Your task to perform on an android device: turn smart compose on in the gmail app Image 0: 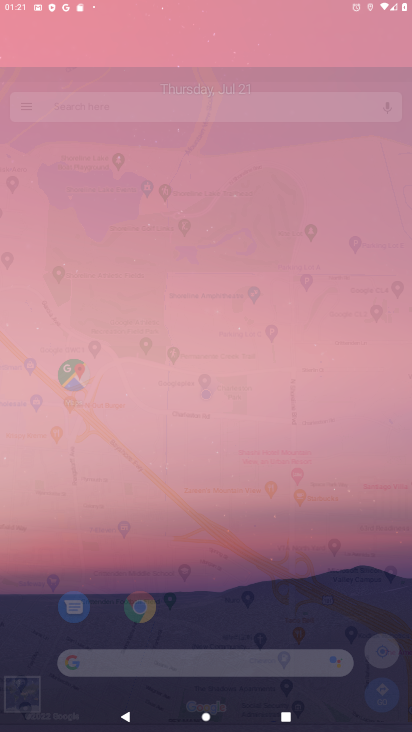
Step 0: click (223, 80)
Your task to perform on an android device: turn smart compose on in the gmail app Image 1: 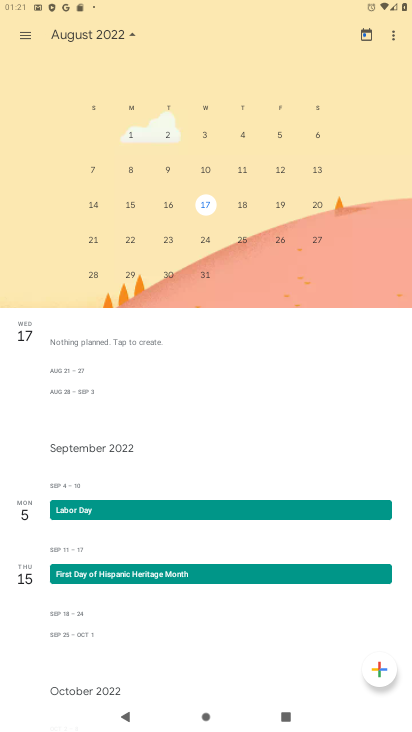
Step 1: press home button
Your task to perform on an android device: turn smart compose on in the gmail app Image 2: 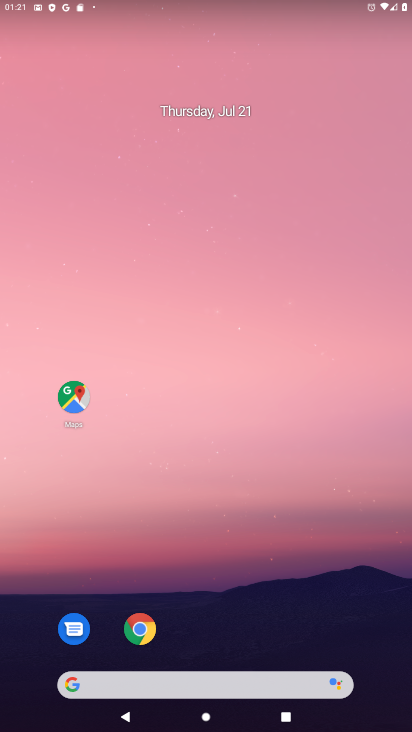
Step 2: drag from (208, 631) to (244, 54)
Your task to perform on an android device: turn smart compose on in the gmail app Image 3: 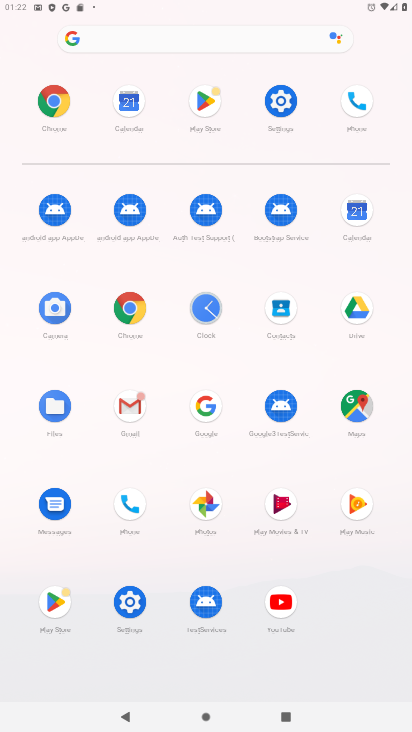
Step 3: click (128, 400)
Your task to perform on an android device: turn smart compose on in the gmail app Image 4: 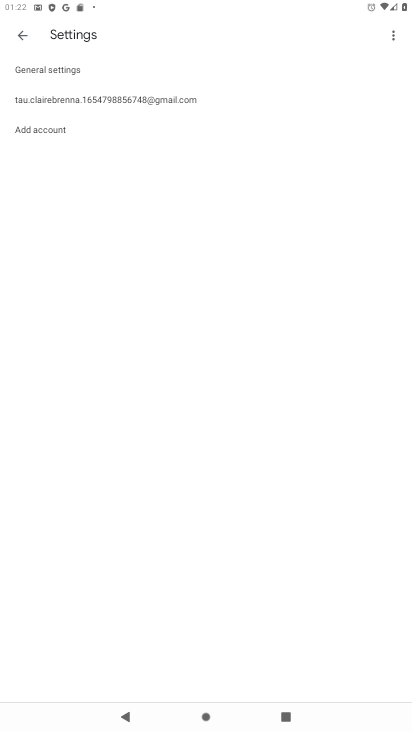
Step 4: click (68, 99)
Your task to perform on an android device: turn smart compose on in the gmail app Image 5: 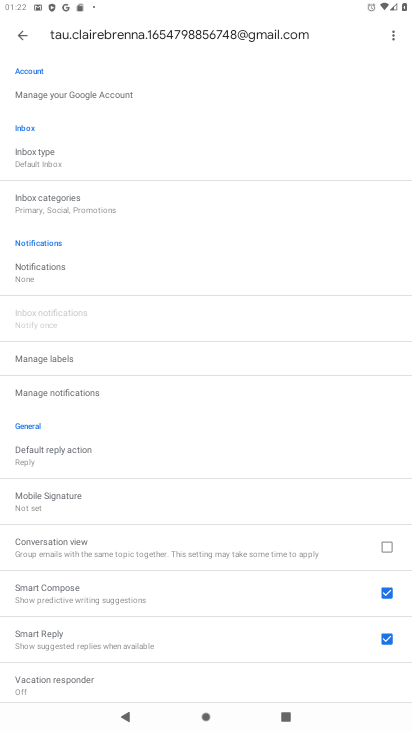
Step 5: task complete